Your task to perform on an android device: Go to eBay Image 0: 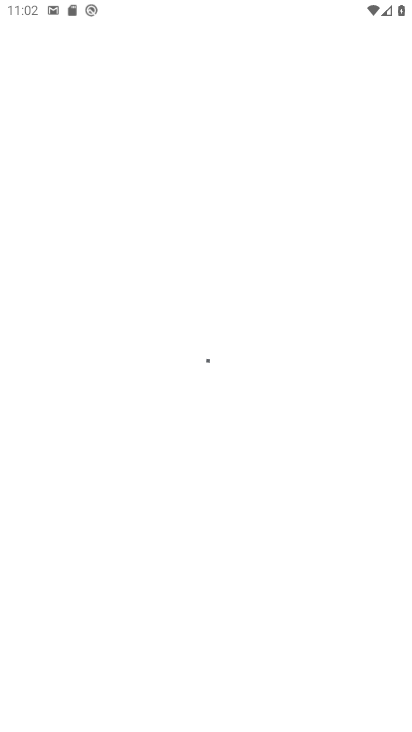
Step 0: press home button
Your task to perform on an android device: Go to eBay Image 1: 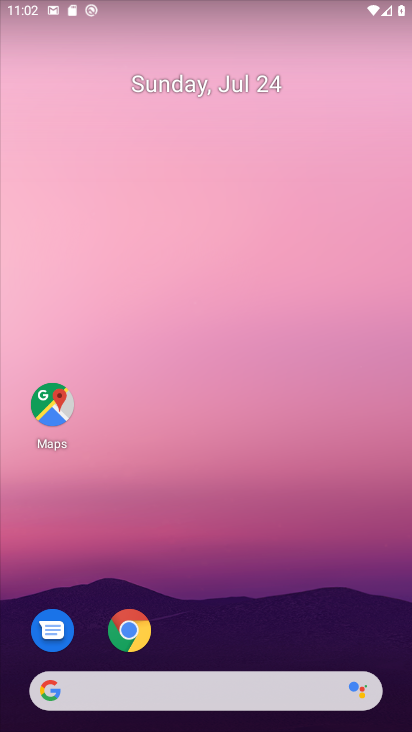
Step 1: click (45, 681)
Your task to perform on an android device: Go to eBay Image 2: 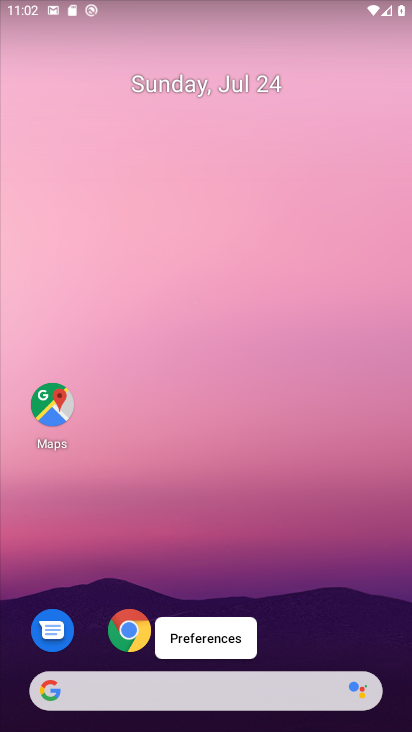
Step 2: click (42, 687)
Your task to perform on an android device: Go to eBay Image 3: 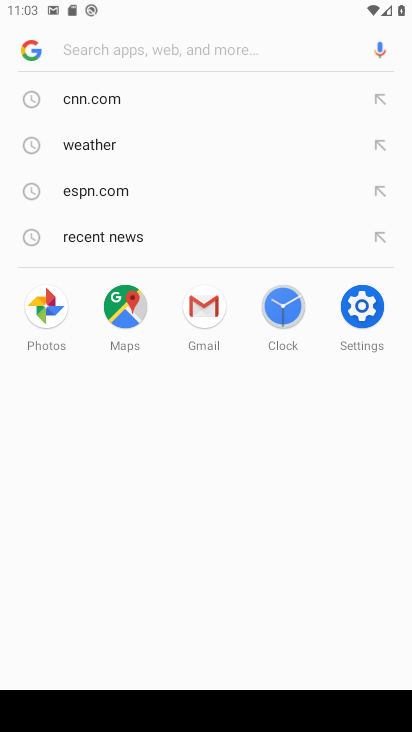
Step 3: type "eBay"
Your task to perform on an android device: Go to eBay Image 4: 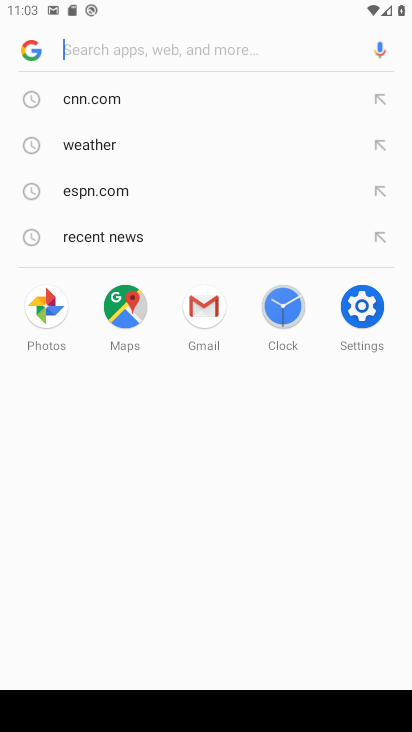
Step 4: click (76, 45)
Your task to perform on an android device: Go to eBay Image 5: 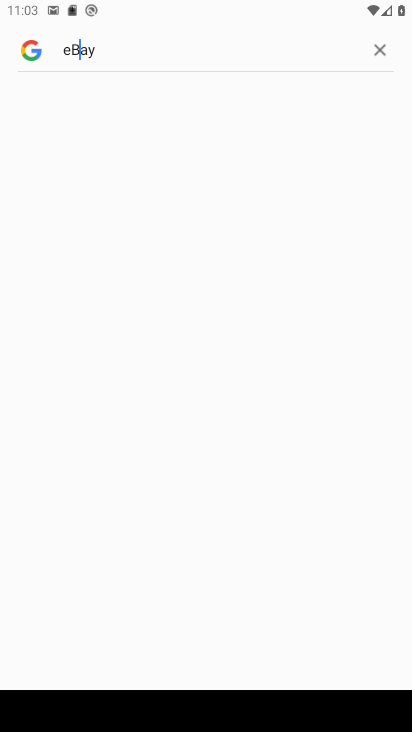
Step 5: type "eBay"
Your task to perform on an android device: Go to eBay Image 6: 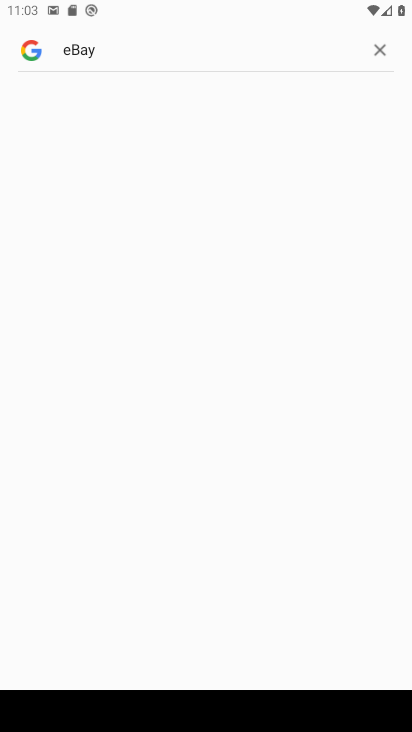
Step 6: click (117, 42)
Your task to perform on an android device: Go to eBay Image 7: 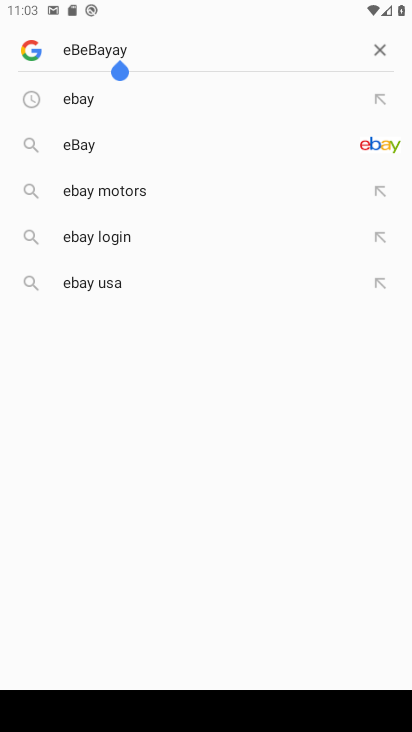
Step 7: click (63, 144)
Your task to perform on an android device: Go to eBay Image 8: 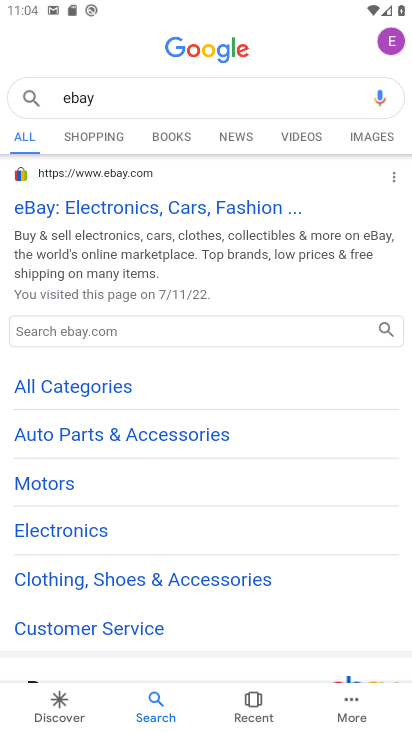
Step 8: click (130, 204)
Your task to perform on an android device: Go to eBay Image 9: 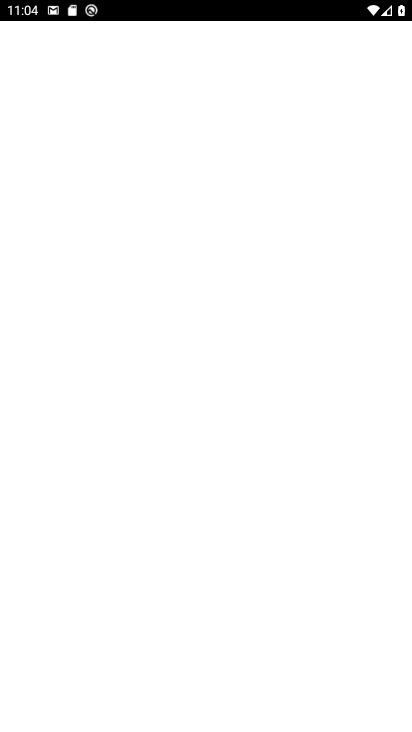
Step 9: click (36, 206)
Your task to perform on an android device: Go to eBay Image 10: 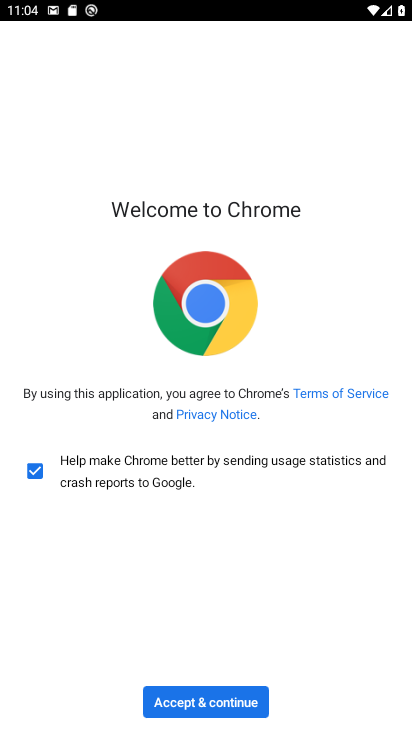
Step 10: click (225, 702)
Your task to perform on an android device: Go to eBay Image 11: 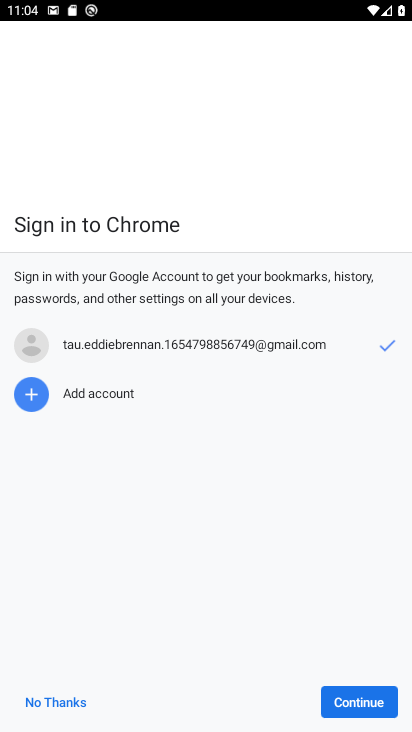
Step 11: click (377, 699)
Your task to perform on an android device: Go to eBay Image 12: 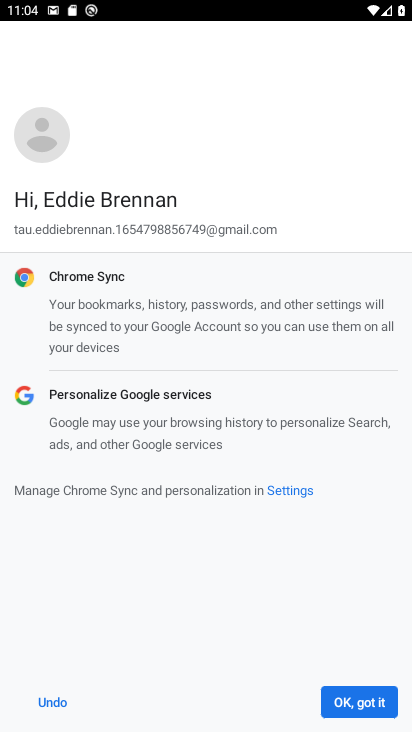
Step 12: click (378, 700)
Your task to perform on an android device: Go to eBay Image 13: 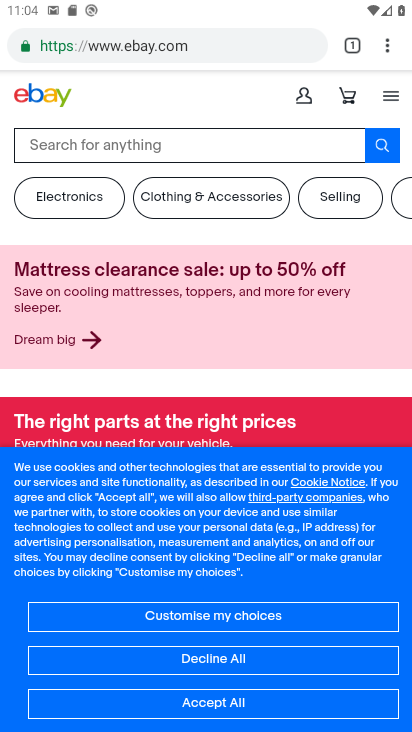
Step 13: task complete